Your task to perform on an android device: toggle priority inbox in the gmail app Image 0: 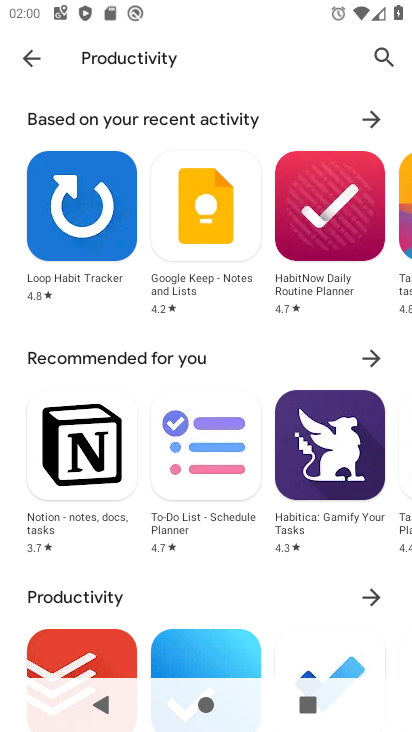
Step 0: press home button
Your task to perform on an android device: toggle priority inbox in the gmail app Image 1: 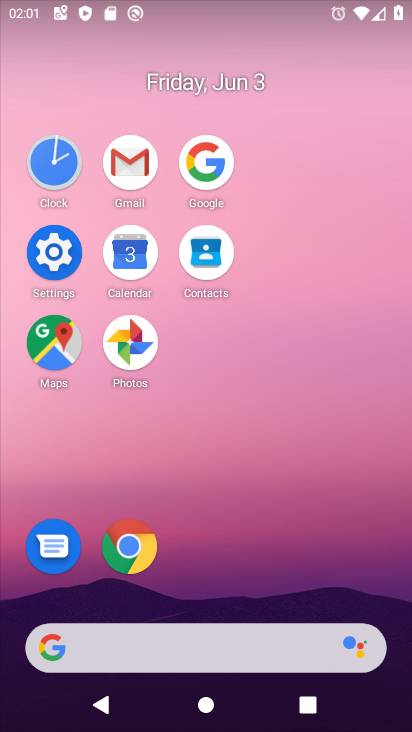
Step 1: click (139, 158)
Your task to perform on an android device: toggle priority inbox in the gmail app Image 2: 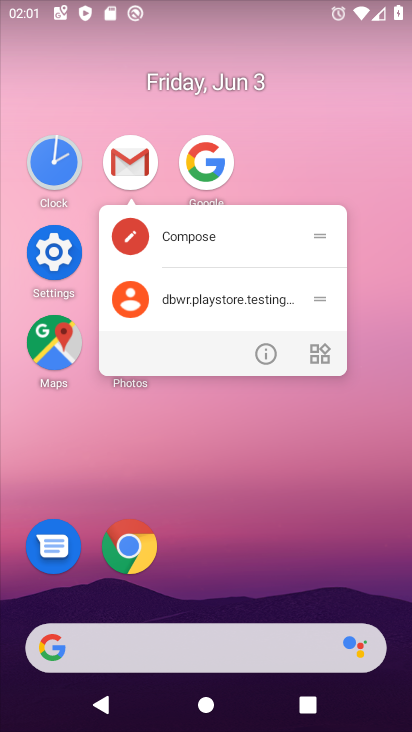
Step 2: click (157, 163)
Your task to perform on an android device: toggle priority inbox in the gmail app Image 3: 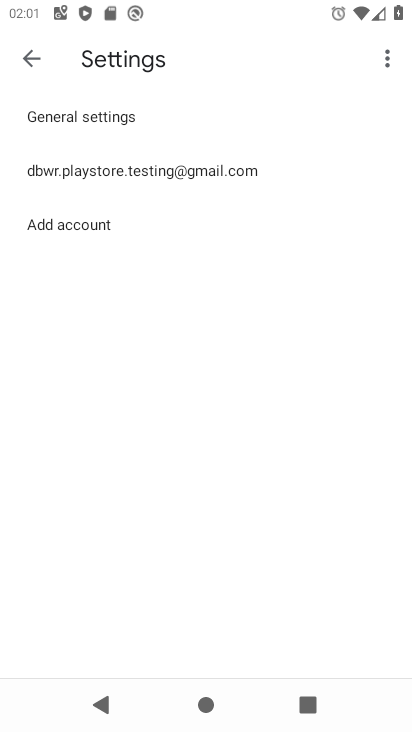
Step 3: click (103, 171)
Your task to perform on an android device: toggle priority inbox in the gmail app Image 4: 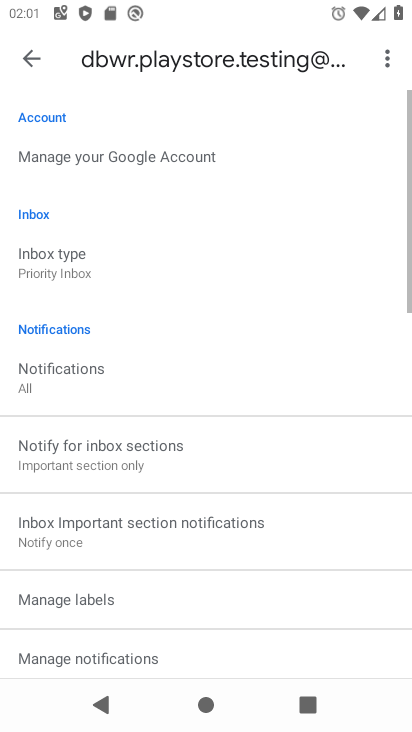
Step 4: click (69, 271)
Your task to perform on an android device: toggle priority inbox in the gmail app Image 5: 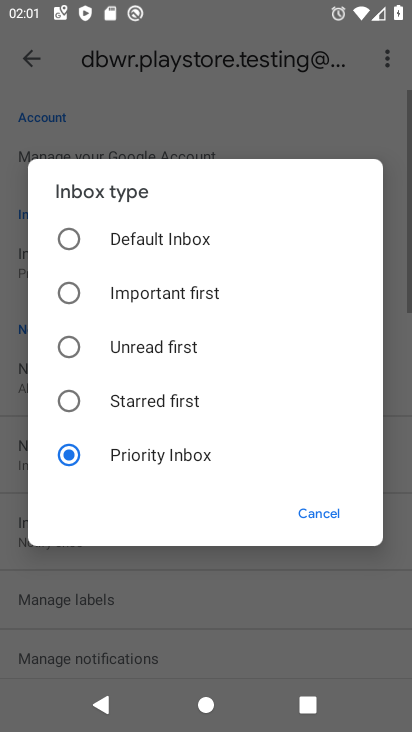
Step 5: click (150, 251)
Your task to perform on an android device: toggle priority inbox in the gmail app Image 6: 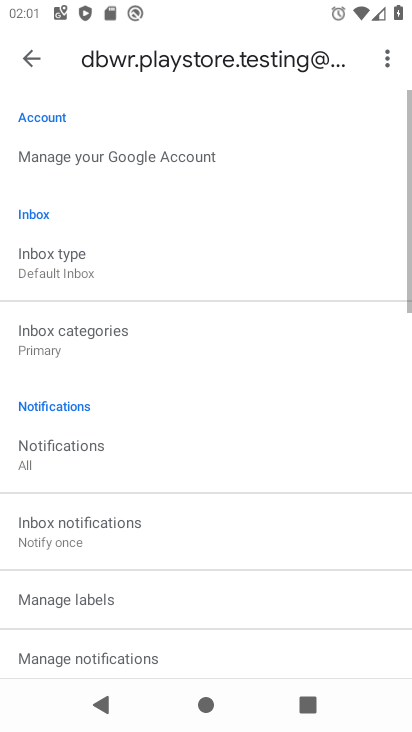
Step 6: task complete